Your task to perform on an android device: Open Google Chrome and click the shortcut for Amazon.com Image 0: 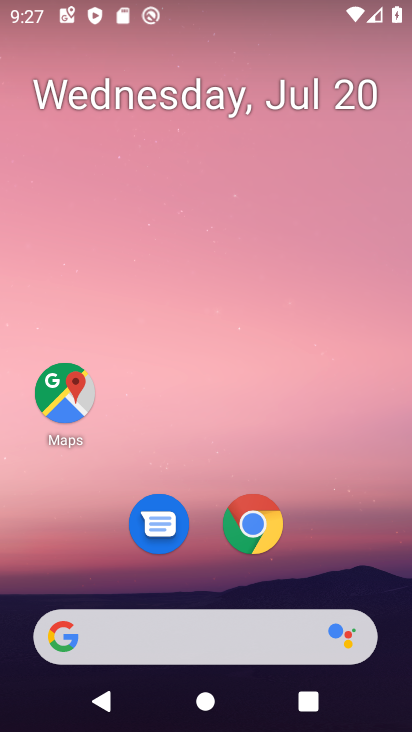
Step 0: click (248, 526)
Your task to perform on an android device: Open Google Chrome and click the shortcut for Amazon.com Image 1: 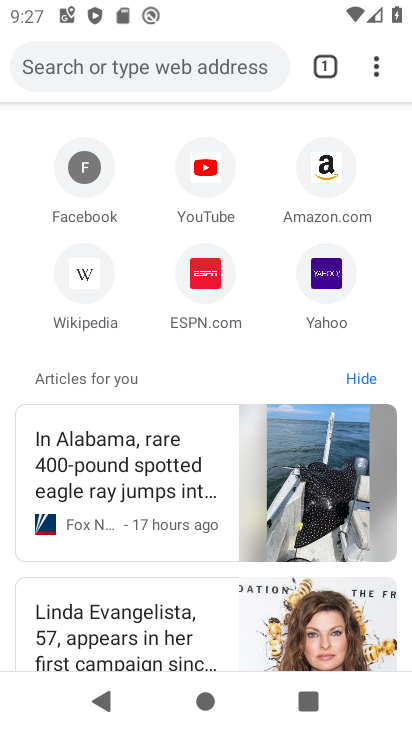
Step 1: click (331, 183)
Your task to perform on an android device: Open Google Chrome and click the shortcut for Amazon.com Image 2: 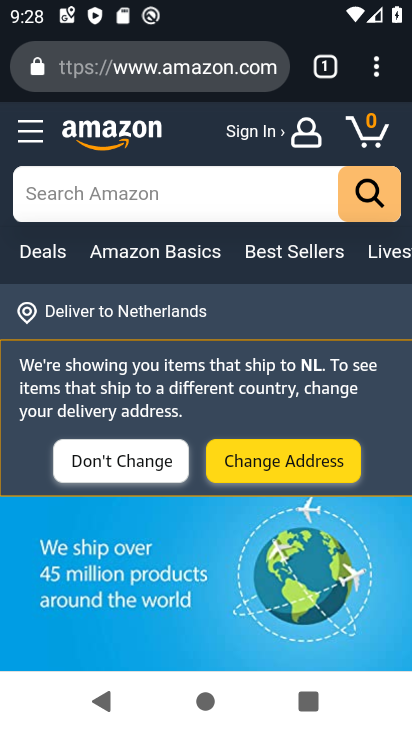
Step 2: task complete